Your task to perform on an android device: Go to Reddit.com Image 0: 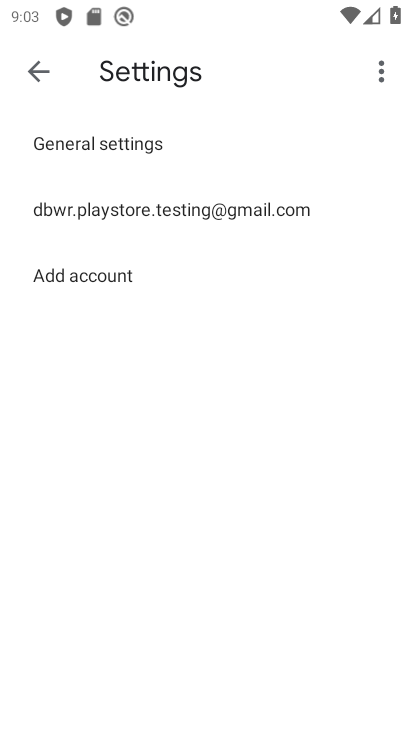
Step 0: press home button
Your task to perform on an android device: Go to Reddit.com Image 1: 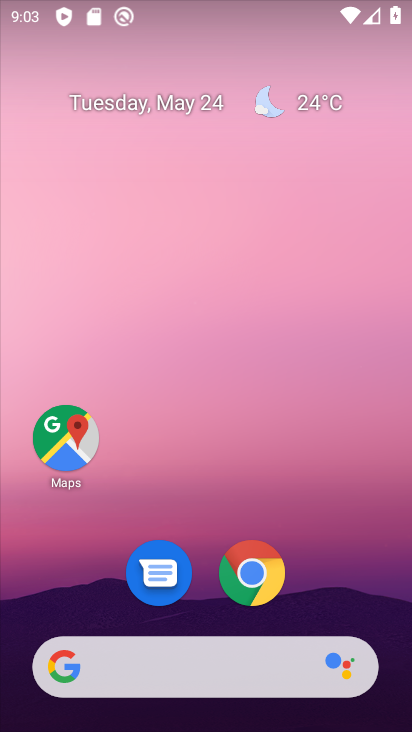
Step 1: click (245, 578)
Your task to perform on an android device: Go to Reddit.com Image 2: 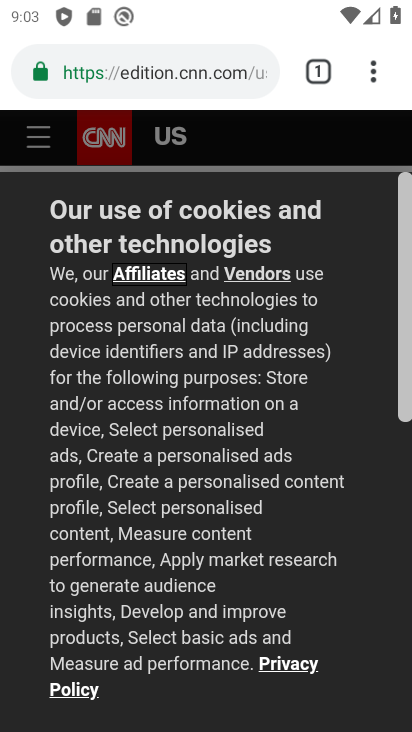
Step 2: click (161, 74)
Your task to perform on an android device: Go to Reddit.com Image 3: 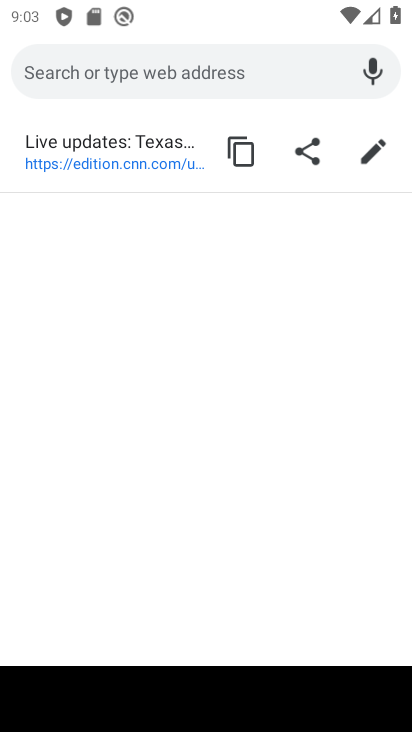
Step 3: type "reddit.com"
Your task to perform on an android device: Go to Reddit.com Image 4: 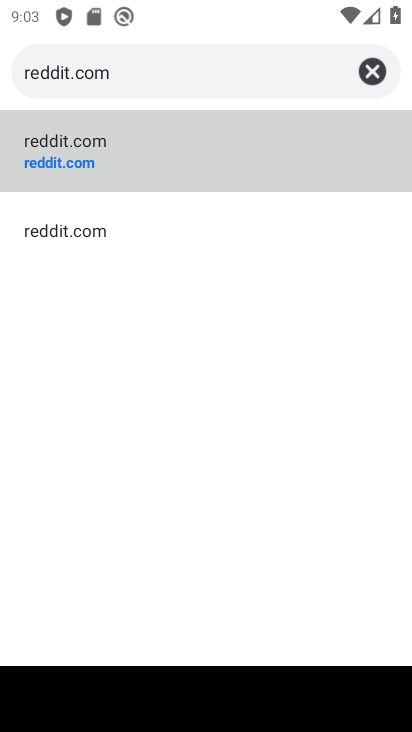
Step 4: click (54, 153)
Your task to perform on an android device: Go to Reddit.com Image 5: 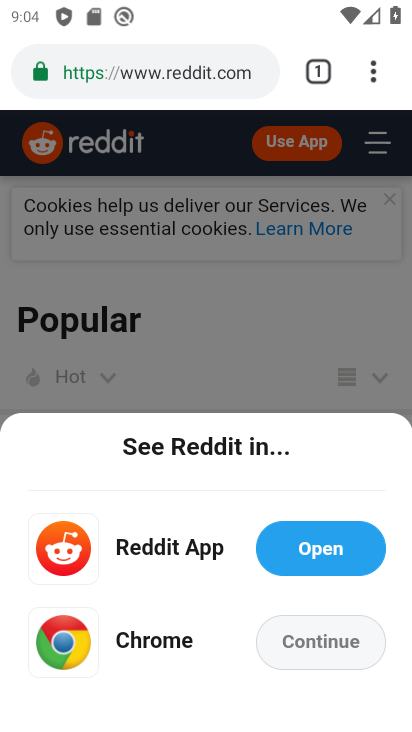
Step 5: task complete